Your task to perform on an android device: Empty the shopping cart on target. Add energizer triple a to the cart on target, then select checkout. Image 0: 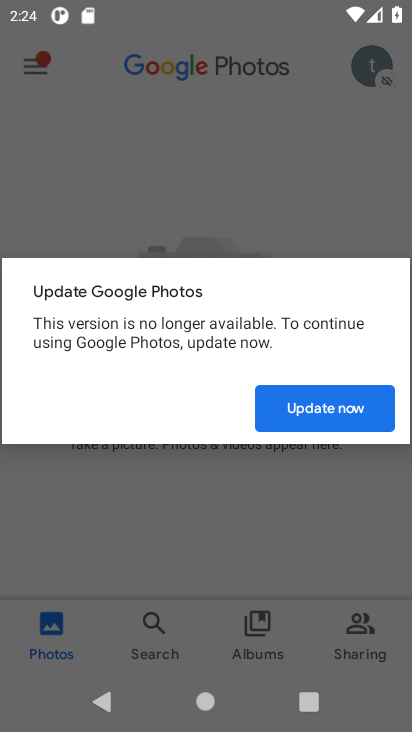
Step 0: press home button
Your task to perform on an android device: Empty the shopping cart on target. Add energizer triple a to the cart on target, then select checkout. Image 1: 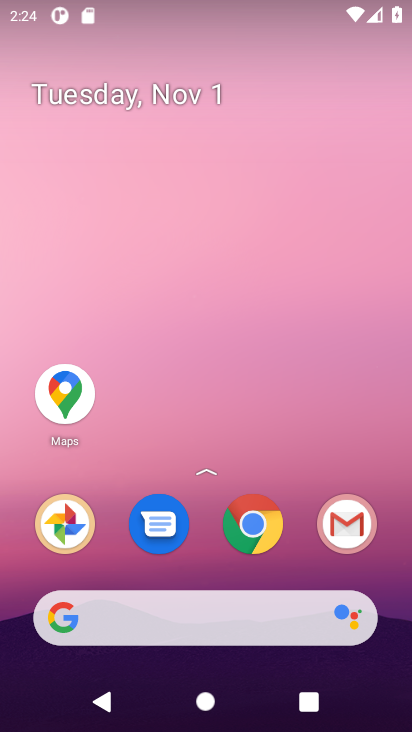
Step 1: click (250, 523)
Your task to perform on an android device: Empty the shopping cart on target. Add energizer triple a to the cart on target, then select checkout. Image 2: 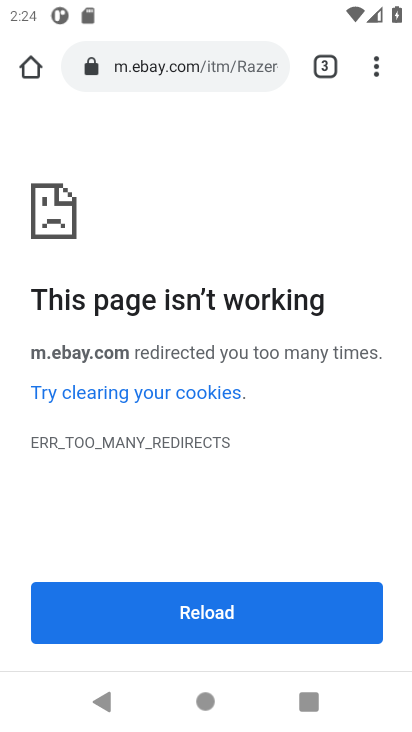
Step 2: click (200, 47)
Your task to perform on an android device: Empty the shopping cart on target. Add energizer triple a to the cart on target, then select checkout. Image 3: 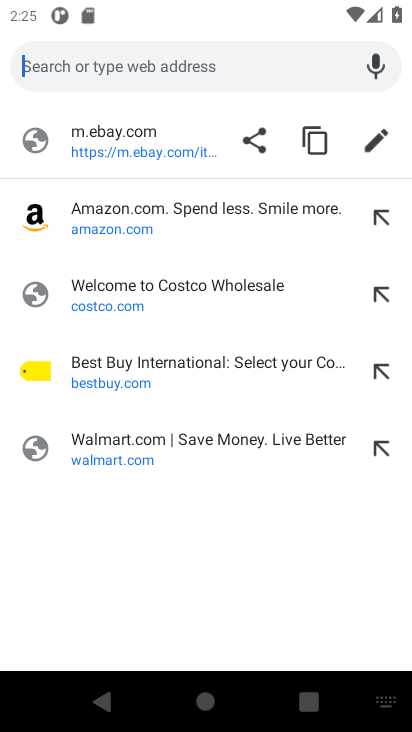
Step 3: type "target"
Your task to perform on an android device: Empty the shopping cart on target. Add energizer triple a to the cart on target, then select checkout. Image 4: 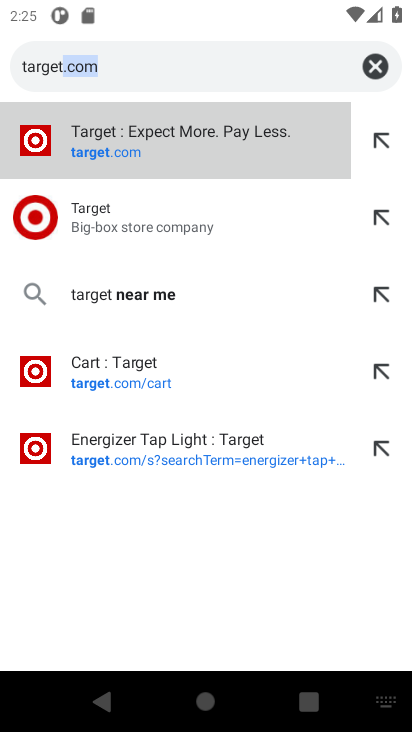
Step 4: click (85, 132)
Your task to perform on an android device: Empty the shopping cart on target. Add energizer triple a to the cart on target, then select checkout. Image 5: 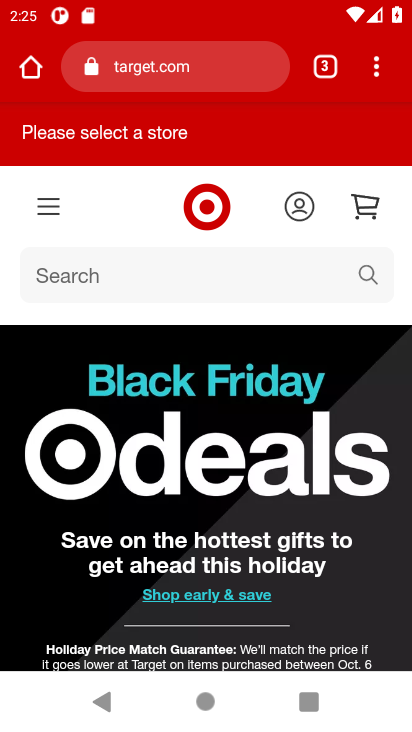
Step 5: click (357, 197)
Your task to perform on an android device: Empty the shopping cart on target. Add energizer triple a to the cart on target, then select checkout. Image 6: 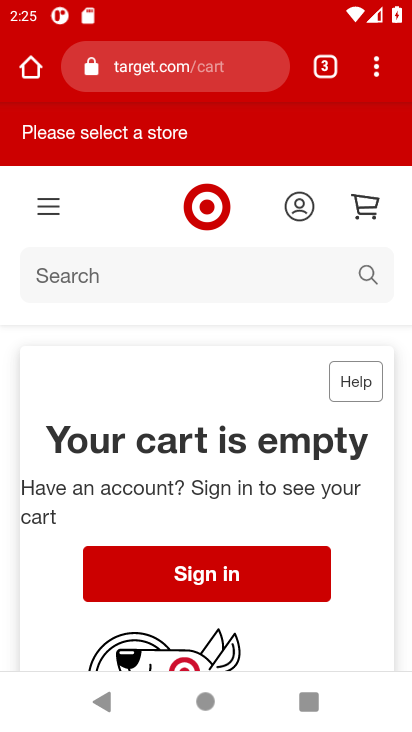
Step 6: click (80, 273)
Your task to perform on an android device: Empty the shopping cart on target. Add energizer triple a to the cart on target, then select checkout. Image 7: 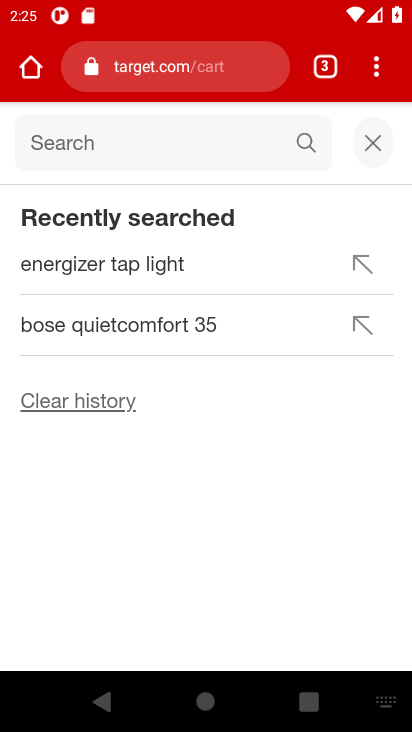
Step 7: type "energizer triple a"
Your task to perform on an android device: Empty the shopping cart on target. Add energizer triple a to the cart on target, then select checkout. Image 8: 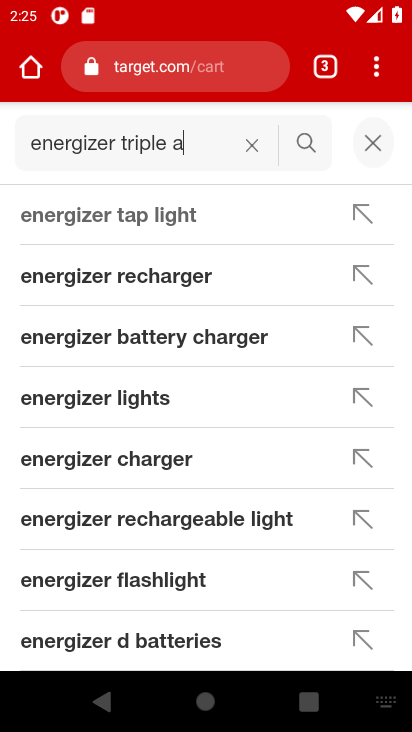
Step 8: drag from (243, 585) to (202, 280)
Your task to perform on an android device: Empty the shopping cart on target. Add energizer triple a to the cart on target, then select checkout. Image 9: 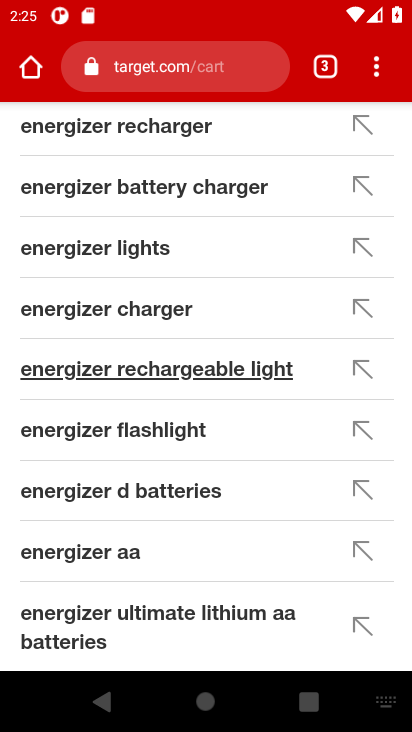
Step 9: click (204, 629)
Your task to perform on an android device: Empty the shopping cart on target. Add energizer triple a to the cart on target, then select checkout. Image 10: 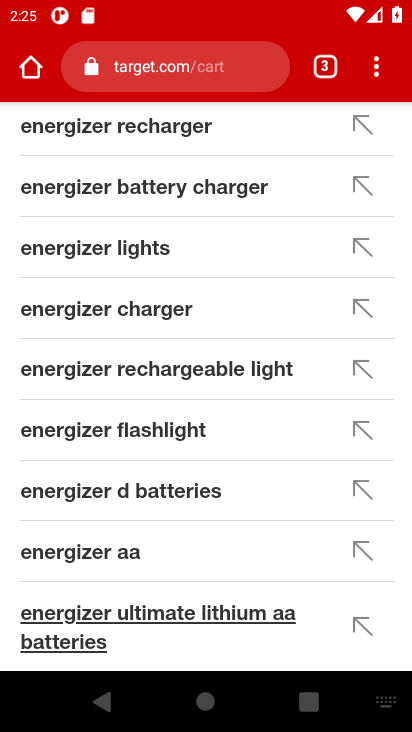
Step 10: drag from (185, 271) to (227, 510)
Your task to perform on an android device: Empty the shopping cart on target. Add energizer triple a to the cart on target, then select checkout. Image 11: 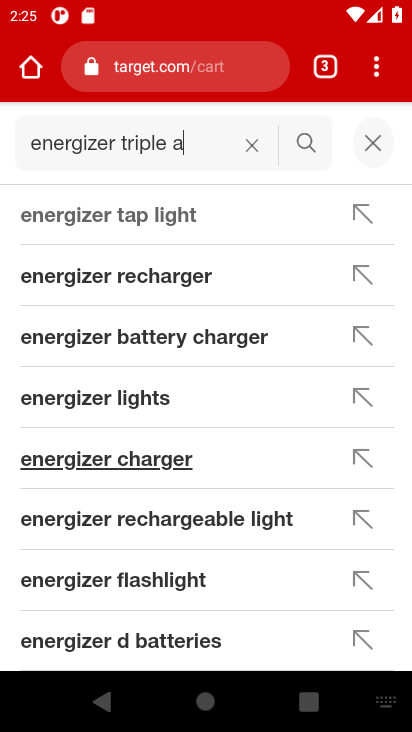
Step 11: click (252, 142)
Your task to perform on an android device: Empty the shopping cart on target. Add energizer triple a to the cart on target, then select checkout. Image 12: 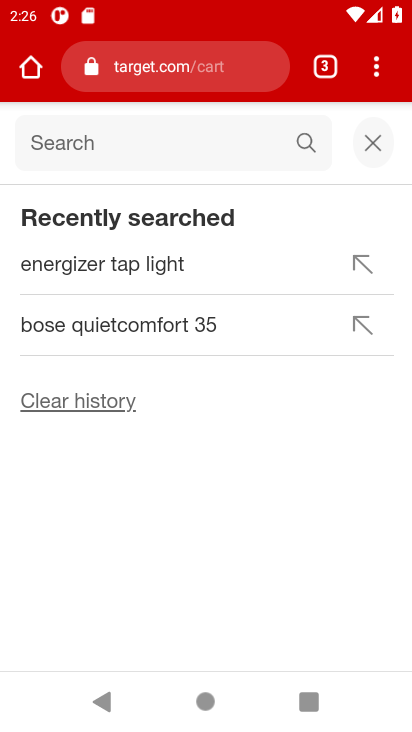
Step 12: type "energizer aaa"
Your task to perform on an android device: Empty the shopping cart on target. Add energizer triple a to the cart on target, then select checkout. Image 13: 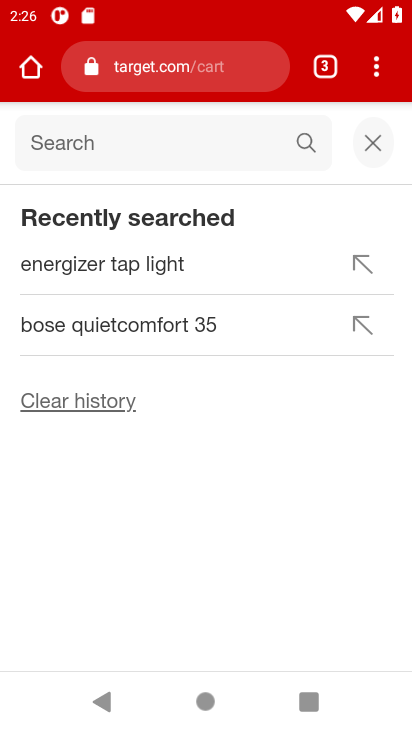
Step 13: click (68, 143)
Your task to perform on an android device: Empty the shopping cart on target. Add energizer triple a to the cart on target, then select checkout. Image 14: 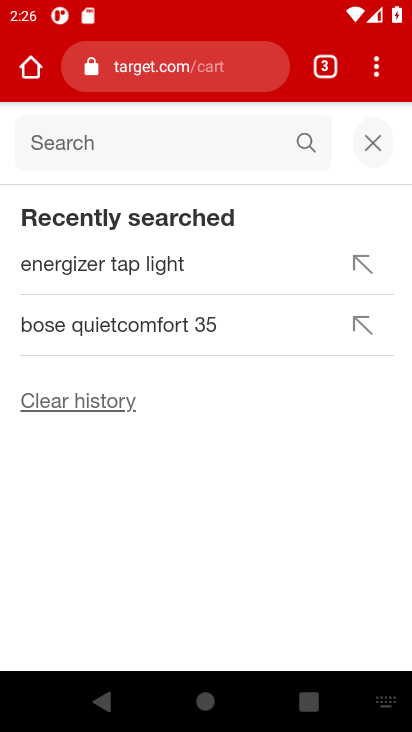
Step 14: type "energizer aaa"
Your task to perform on an android device: Empty the shopping cart on target. Add energizer triple a to the cart on target, then select checkout. Image 15: 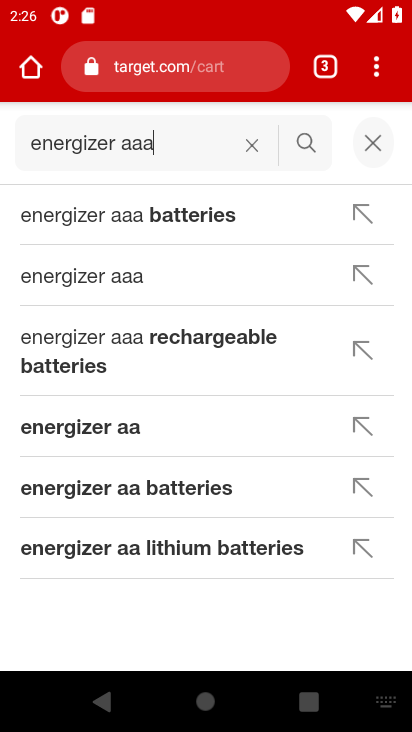
Step 15: click (78, 284)
Your task to perform on an android device: Empty the shopping cart on target. Add energizer triple a to the cart on target, then select checkout. Image 16: 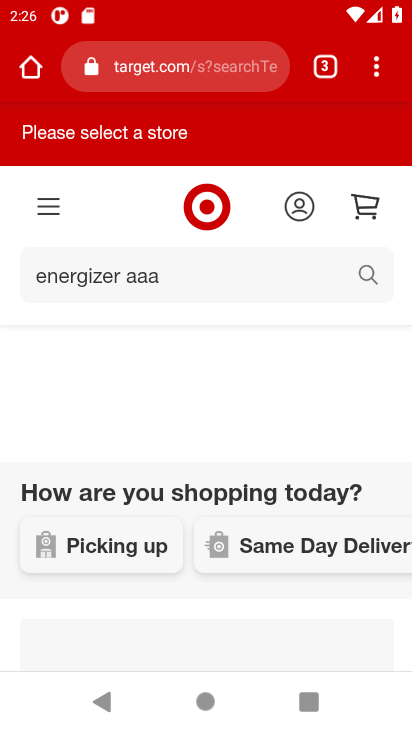
Step 16: drag from (187, 568) to (207, 210)
Your task to perform on an android device: Empty the shopping cart on target. Add energizer triple a to the cart on target, then select checkout. Image 17: 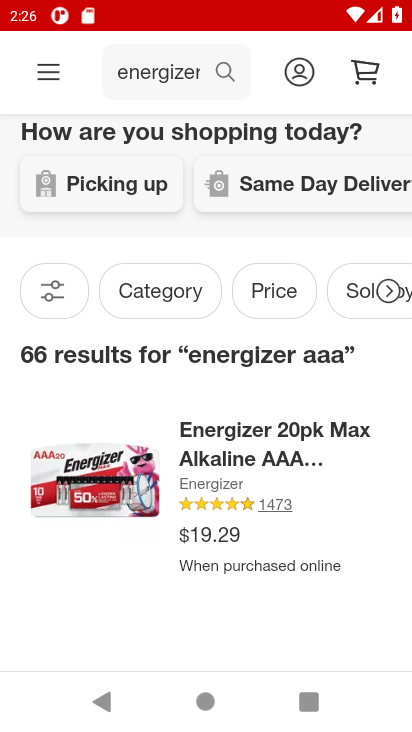
Step 17: drag from (249, 596) to (236, 340)
Your task to perform on an android device: Empty the shopping cart on target. Add energizer triple a to the cart on target, then select checkout. Image 18: 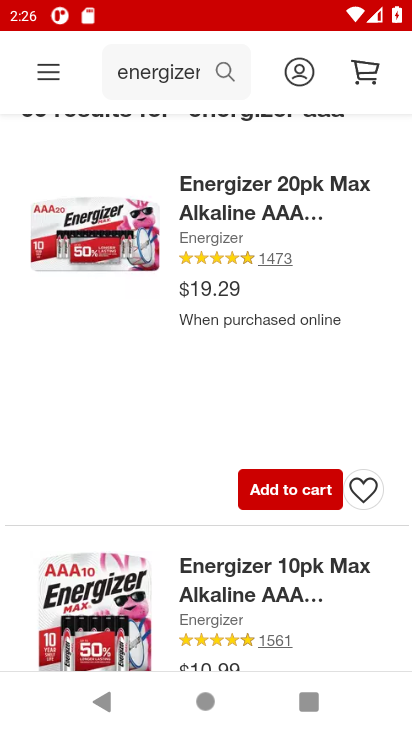
Step 18: click (285, 482)
Your task to perform on an android device: Empty the shopping cart on target. Add energizer triple a to the cart on target, then select checkout. Image 19: 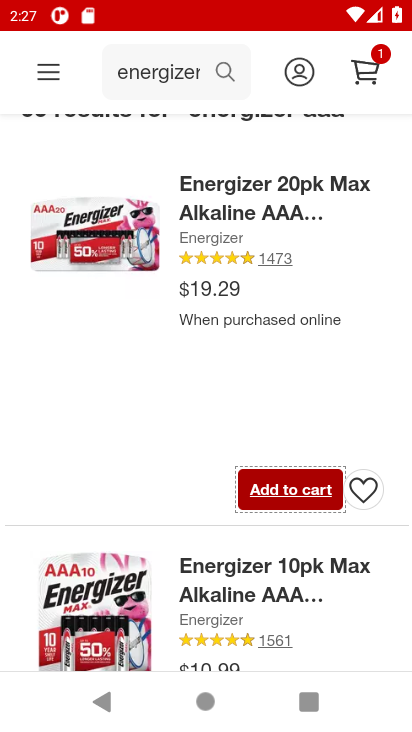
Step 19: click (365, 74)
Your task to perform on an android device: Empty the shopping cart on target. Add energizer triple a to the cart on target, then select checkout. Image 20: 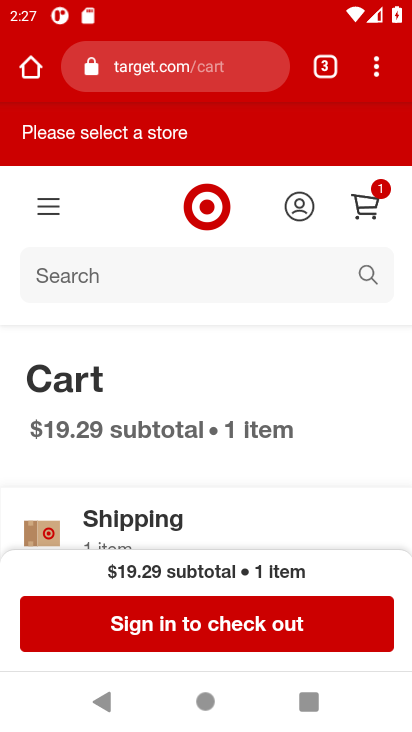
Step 20: click (208, 621)
Your task to perform on an android device: Empty the shopping cart on target. Add energizer triple a to the cart on target, then select checkout. Image 21: 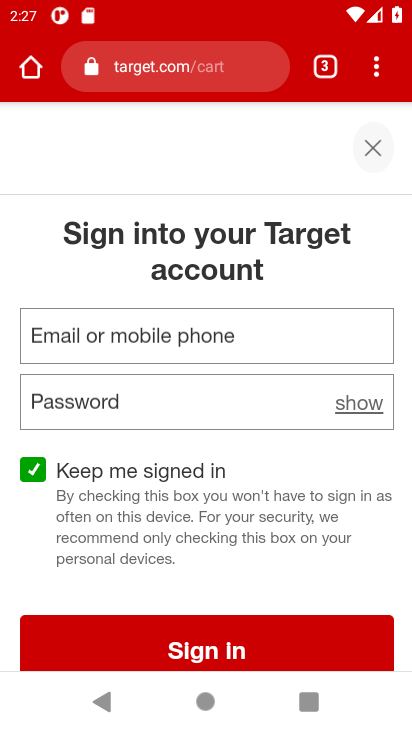
Step 21: task complete